Your task to perform on an android device: What's the weather today? Image 0: 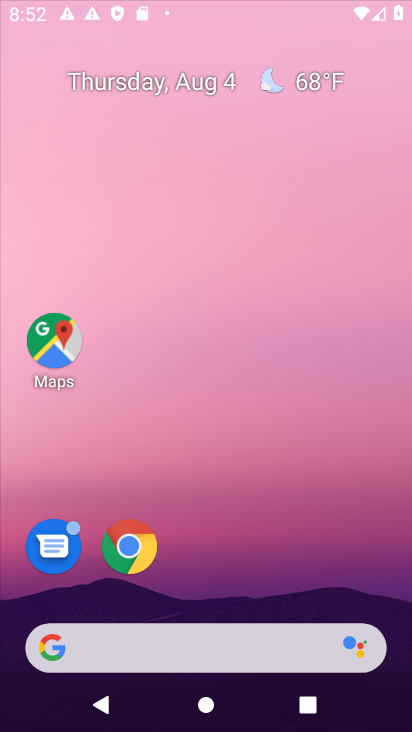
Step 0: press home button
Your task to perform on an android device: What's the weather today? Image 1: 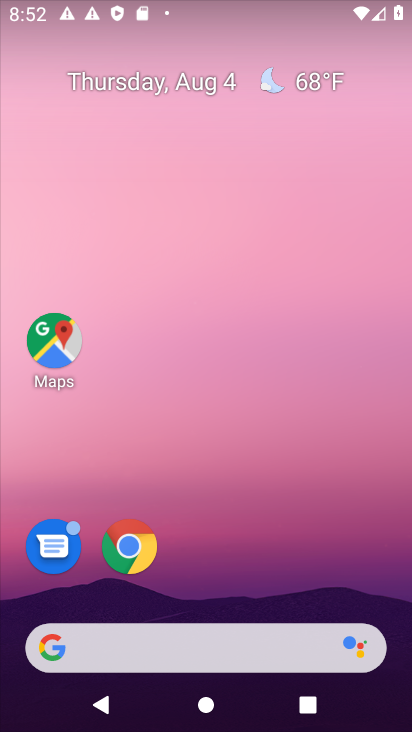
Step 1: click (51, 650)
Your task to perform on an android device: What's the weather today? Image 2: 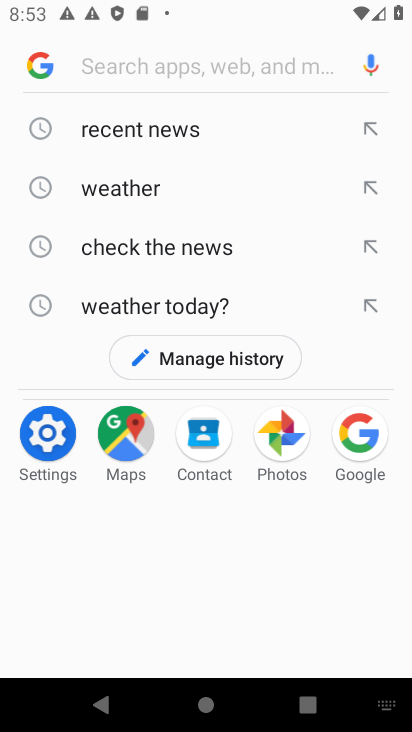
Step 2: click (160, 310)
Your task to perform on an android device: What's the weather today? Image 3: 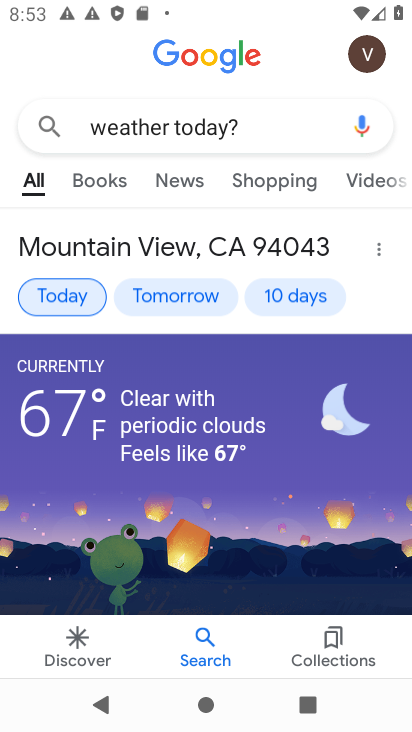
Step 3: task complete